Your task to perform on an android device: Toggle the flashlight Image 0: 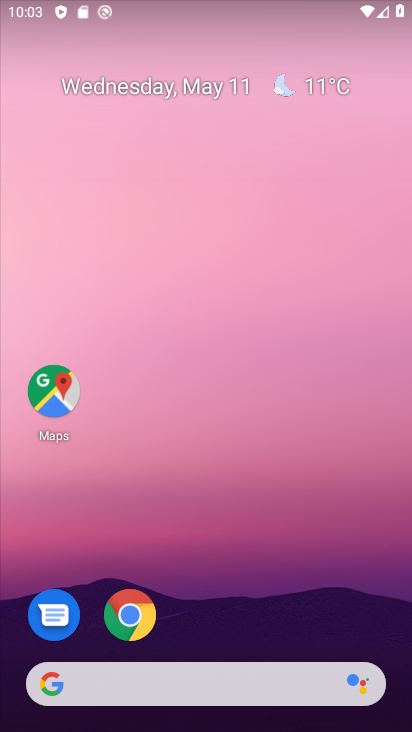
Step 0: drag from (258, 13) to (255, 419)
Your task to perform on an android device: Toggle the flashlight Image 1: 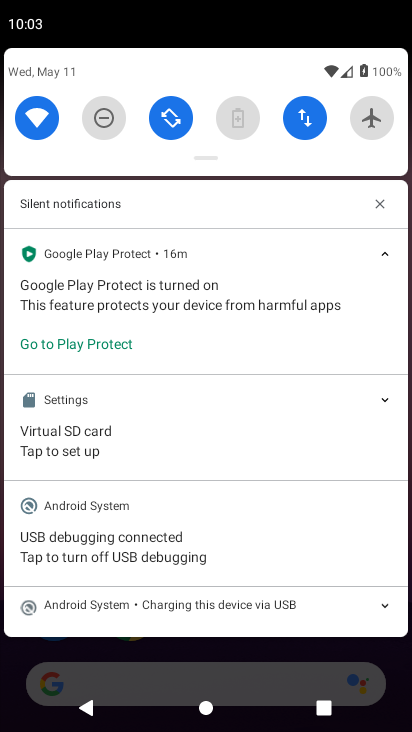
Step 1: task complete